Your task to perform on an android device: When is my next appointment? Image 0: 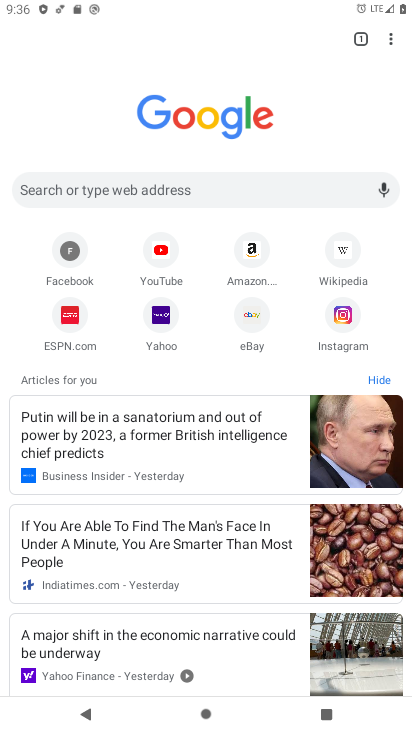
Step 0: press home button
Your task to perform on an android device: When is my next appointment? Image 1: 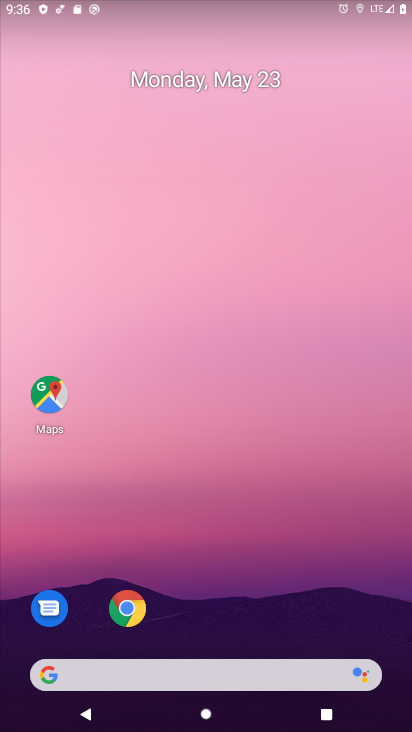
Step 1: drag from (216, 628) to (163, 105)
Your task to perform on an android device: When is my next appointment? Image 2: 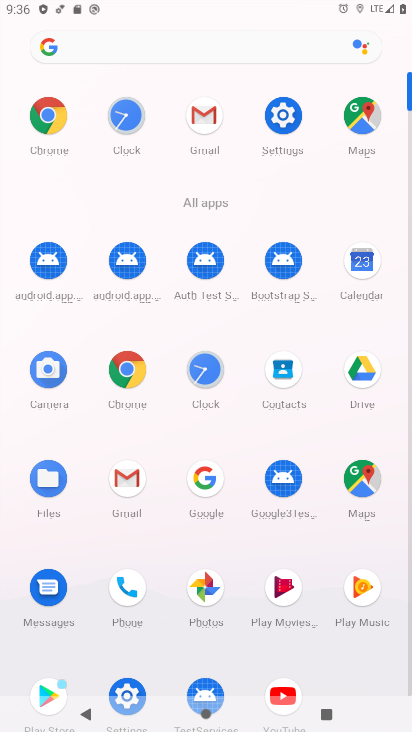
Step 2: click (370, 272)
Your task to perform on an android device: When is my next appointment? Image 3: 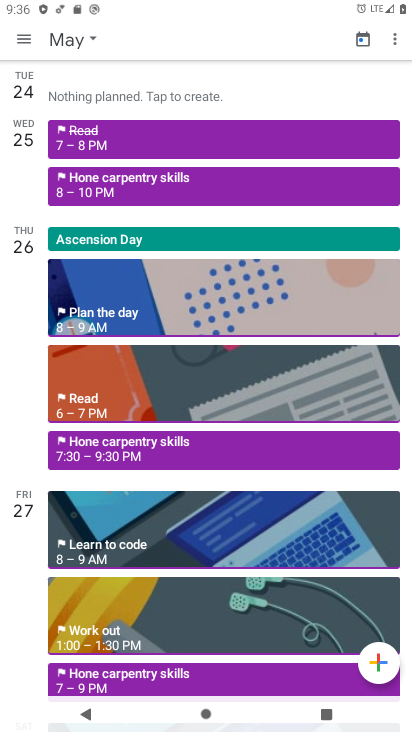
Step 3: task complete